Your task to perform on an android device: turn on location history Image 0: 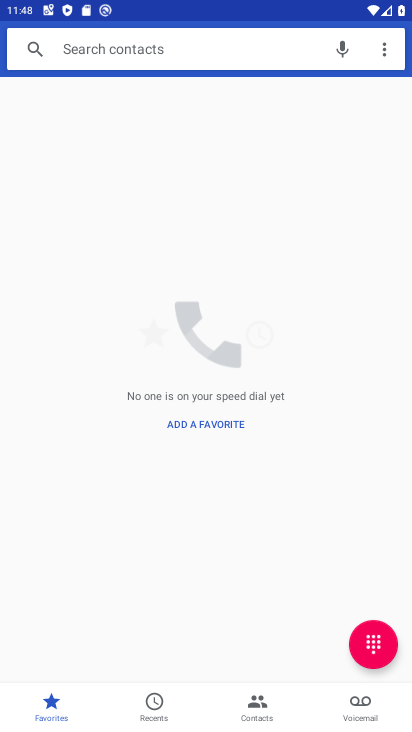
Step 0: press home button
Your task to perform on an android device: turn on location history Image 1: 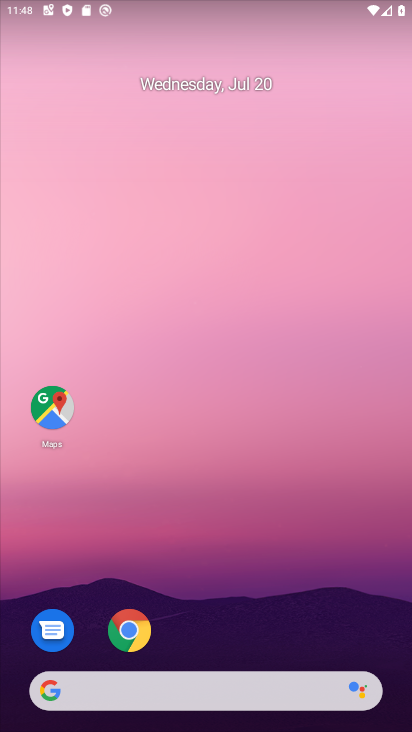
Step 1: drag from (268, 379) to (284, 307)
Your task to perform on an android device: turn on location history Image 2: 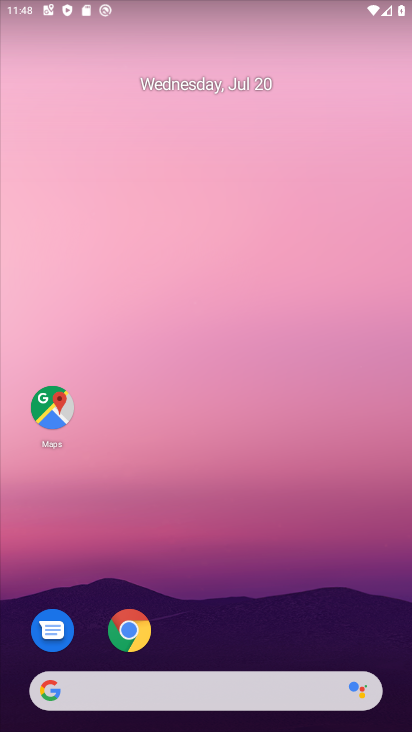
Step 2: drag from (246, 697) to (331, 187)
Your task to perform on an android device: turn on location history Image 3: 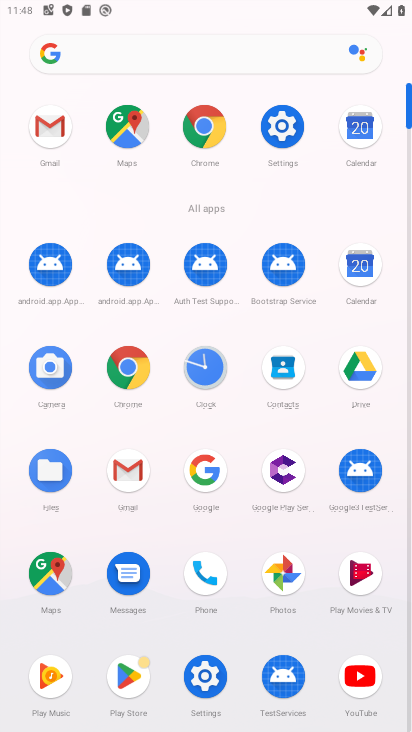
Step 3: click (297, 117)
Your task to perform on an android device: turn on location history Image 4: 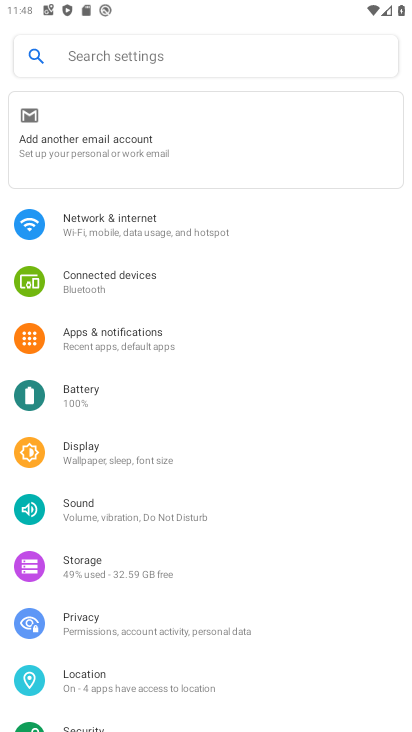
Step 4: click (86, 670)
Your task to perform on an android device: turn on location history Image 5: 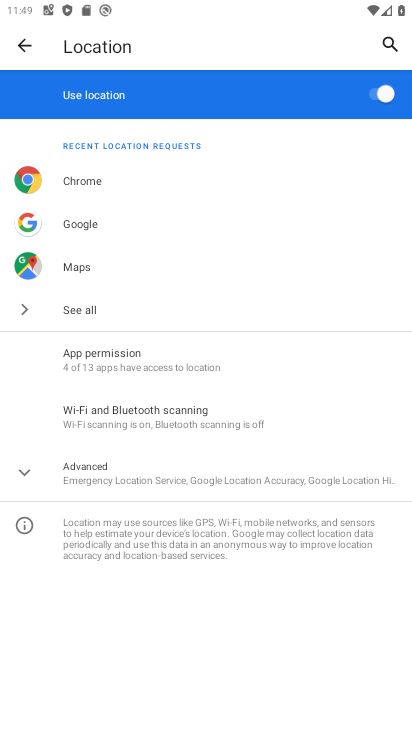
Step 5: task complete